Your task to perform on an android device: Open Google Image 0: 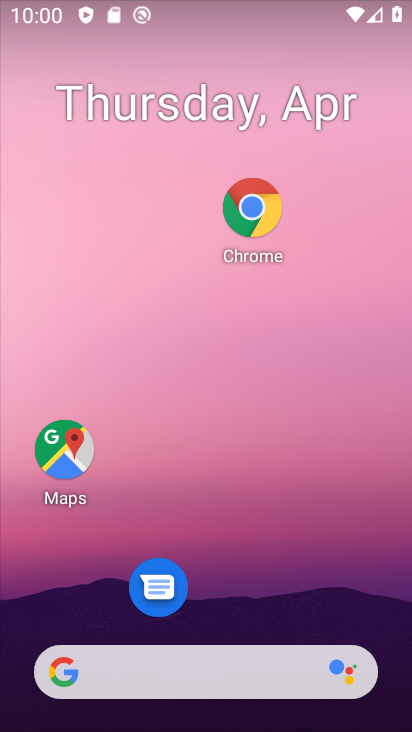
Step 0: click (194, 662)
Your task to perform on an android device: Open Google Image 1: 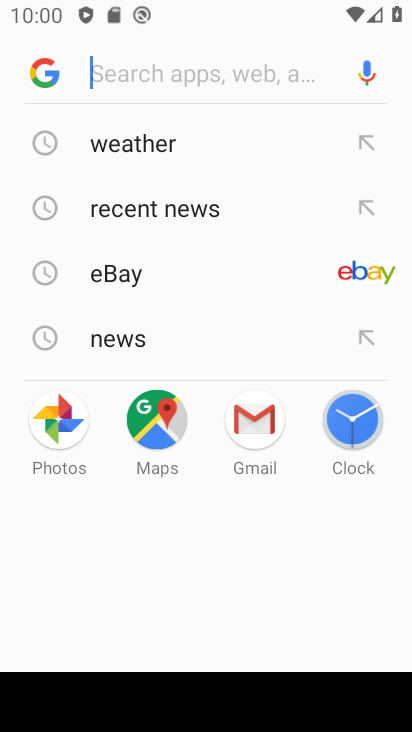
Step 1: type "google.com"
Your task to perform on an android device: Open Google Image 2: 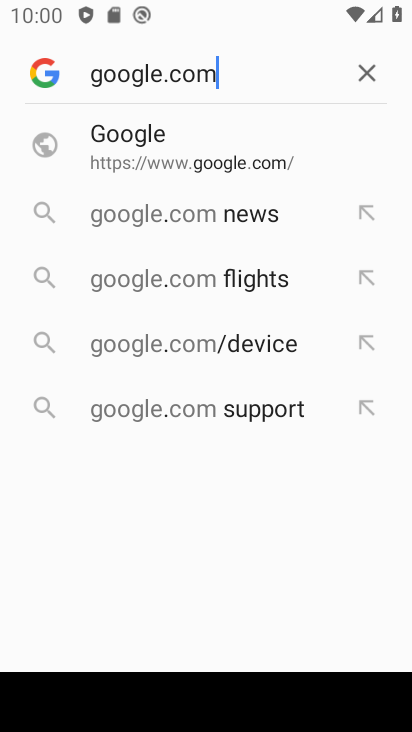
Step 2: click (193, 156)
Your task to perform on an android device: Open Google Image 3: 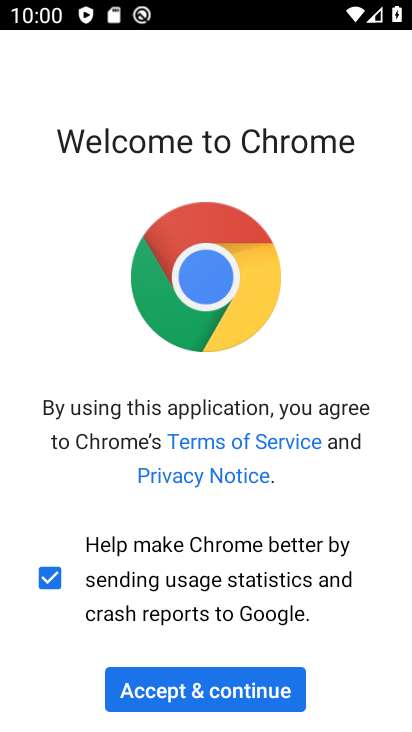
Step 3: click (260, 689)
Your task to perform on an android device: Open Google Image 4: 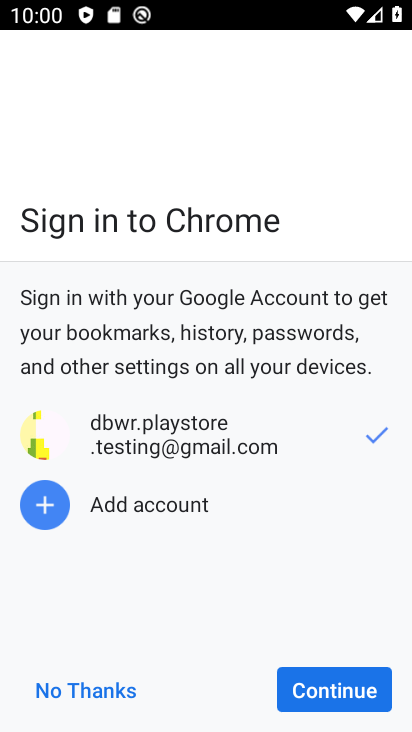
Step 4: click (284, 690)
Your task to perform on an android device: Open Google Image 5: 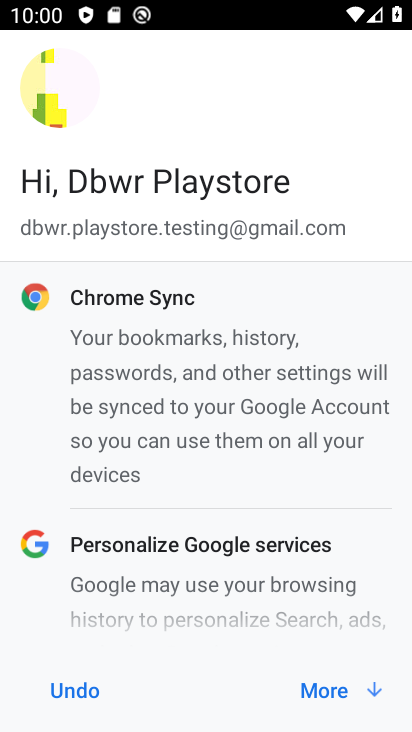
Step 5: click (309, 690)
Your task to perform on an android device: Open Google Image 6: 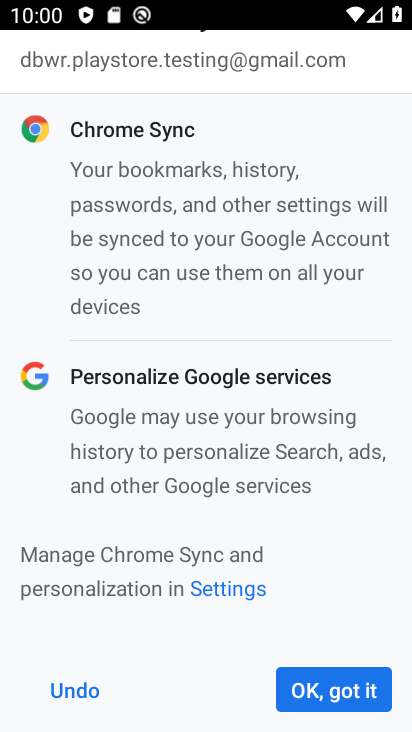
Step 6: click (309, 690)
Your task to perform on an android device: Open Google Image 7: 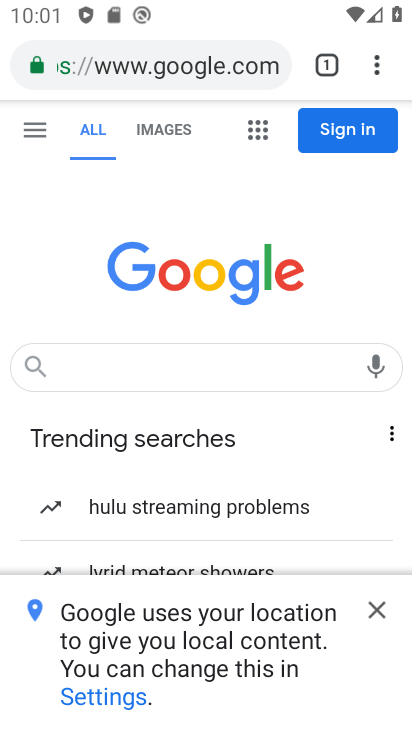
Step 7: task complete